Your task to perform on an android device: Show me the alarms in the clock app Image 0: 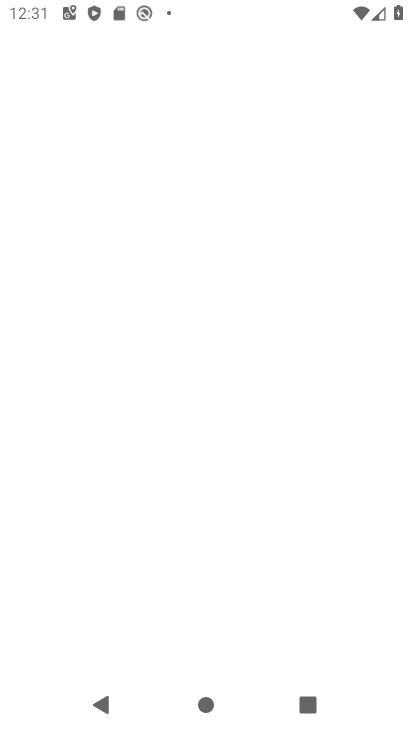
Step 0: press home button
Your task to perform on an android device: Show me the alarms in the clock app Image 1: 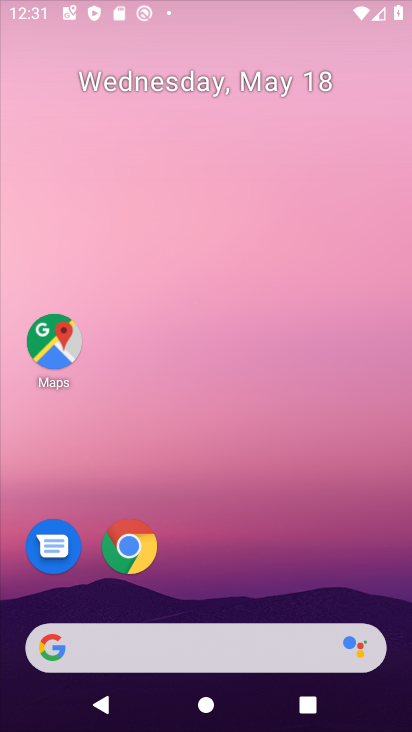
Step 1: drag from (350, 556) to (298, 89)
Your task to perform on an android device: Show me the alarms in the clock app Image 2: 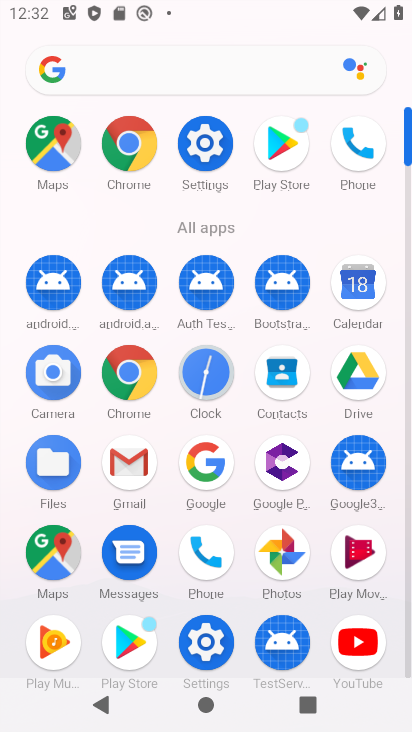
Step 2: click (217, 368)
Your task to perform on an android device: Show me the alarms in the clock app Image 3: 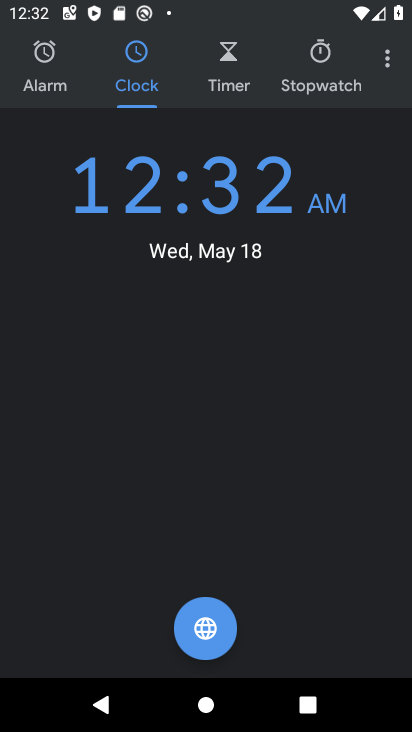
Step 3: click (72, 76)
Your task to perform on an android device: Show me the alarms in the clock app Image 4: 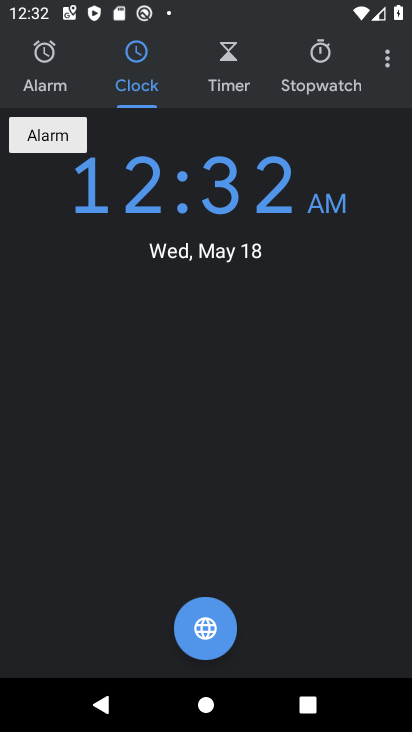
Step 4: click (72, 76)
Your task to perform on an android device: Show me the alarms in the clock app Image 5: 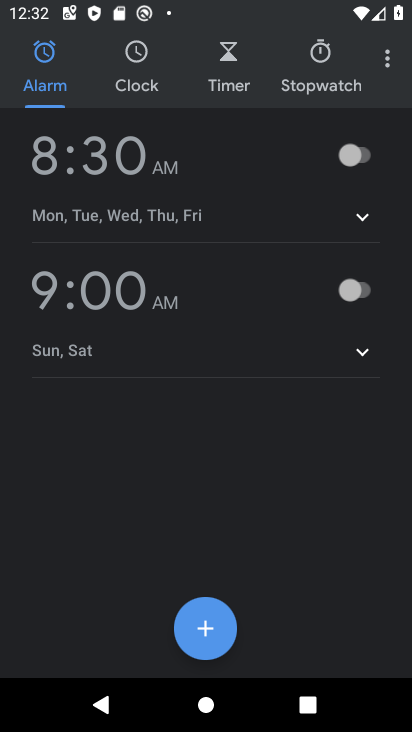
Step 5: task complete